Your task to perform on an android device: turn off wifi Image 0: 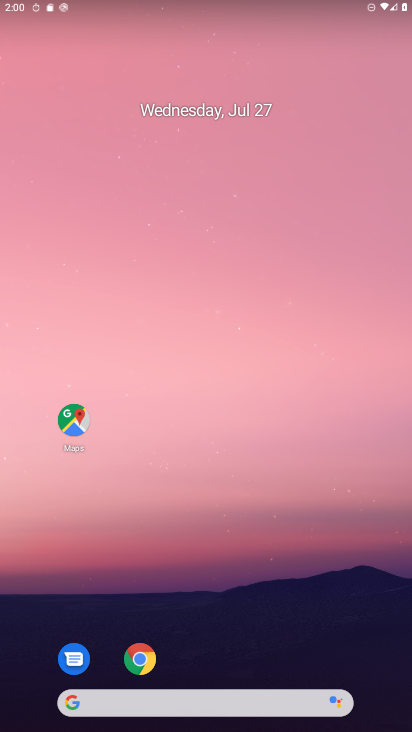
Step 0: drag from (327, 605) to (288, 16)
Your task to perform on an android device: turn off wifi Image 1: 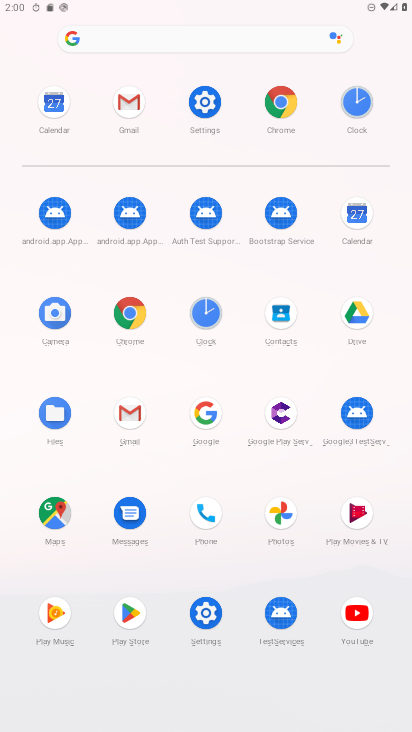
Step 1: click (207, 103)
Your task to perform on an android device: turn off wifi Image 2: 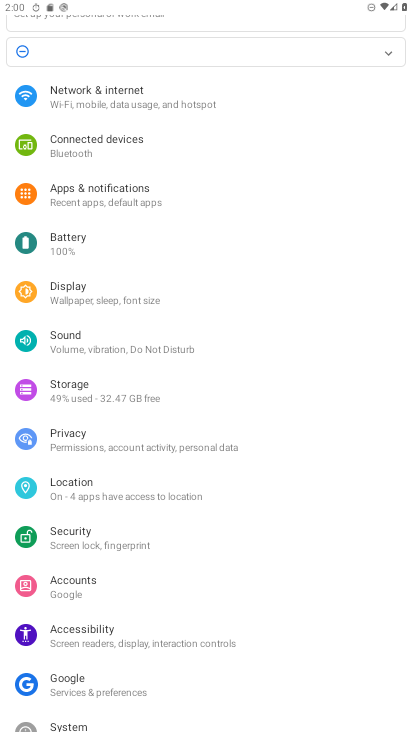
Step 2: click (147, 98)
Your task to perform on an android device: turn off wifi Image 3: 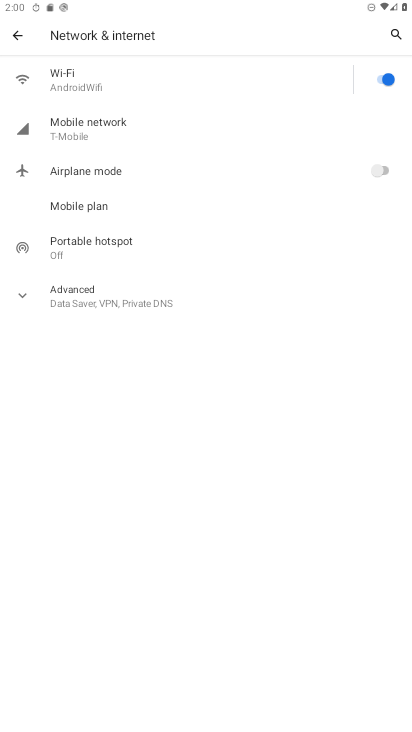
Step 3: click (386, 83)
Your task to perform on an android device: turn off wifi Image 4: 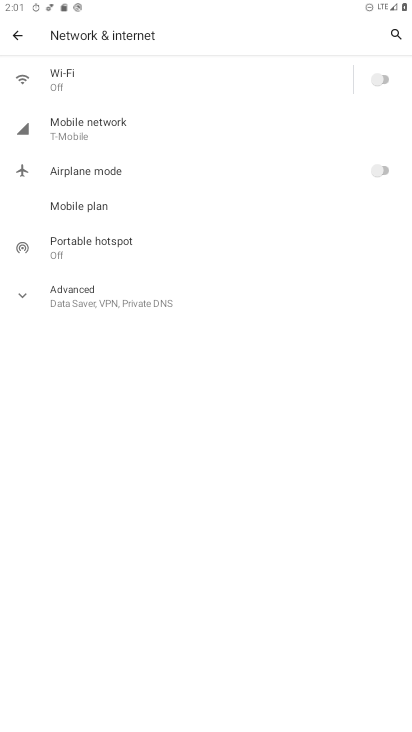
Step 4: task complete